Your task to perform on an android device: turn notification dots on Image 0: 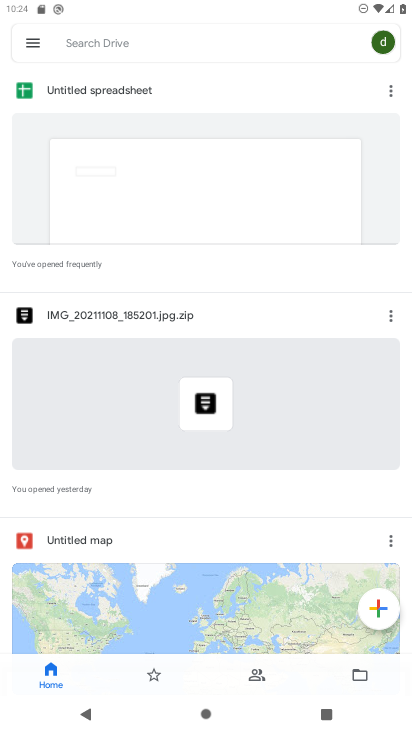
Step 0: press home button
Your task to perform on an android device: turn notification dots on Image 1: 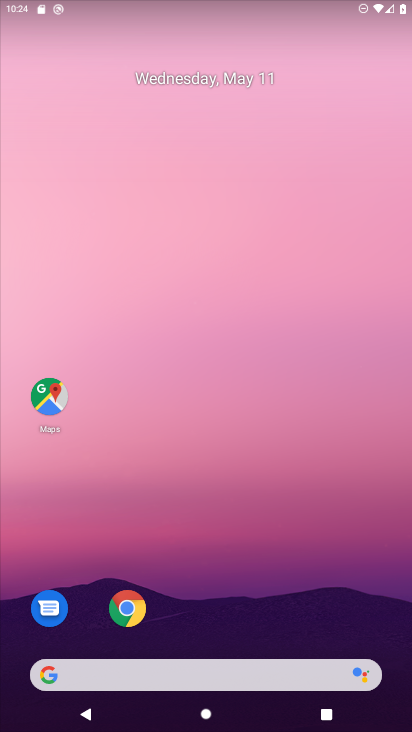
Step 1: drag from (337, 591) to (321, 123)
Your task to perform on an android device: turn notification dots on Image 2: 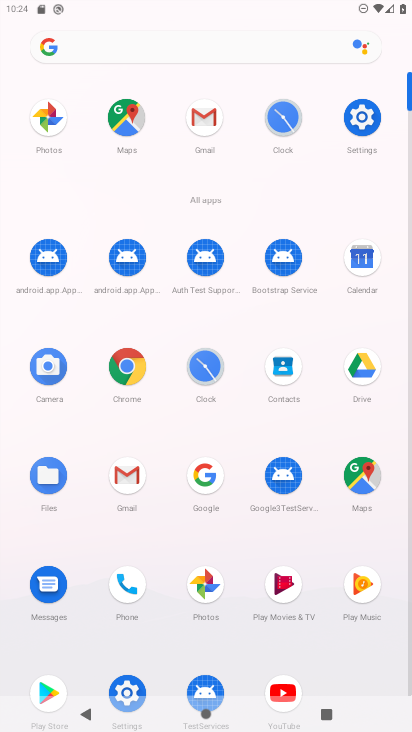
Step 2: click (364, 116)
Your task to perform on an android device: turn notification dots on Image 3: 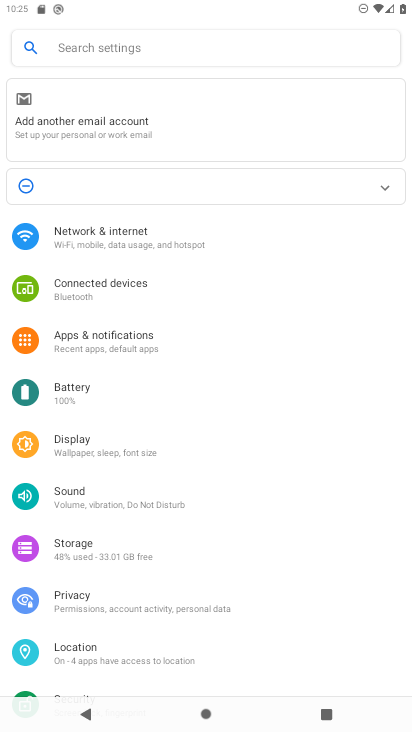
Step 3: click (125, 330)
Your task to perform on an android device: turn notification dots on Image 4: 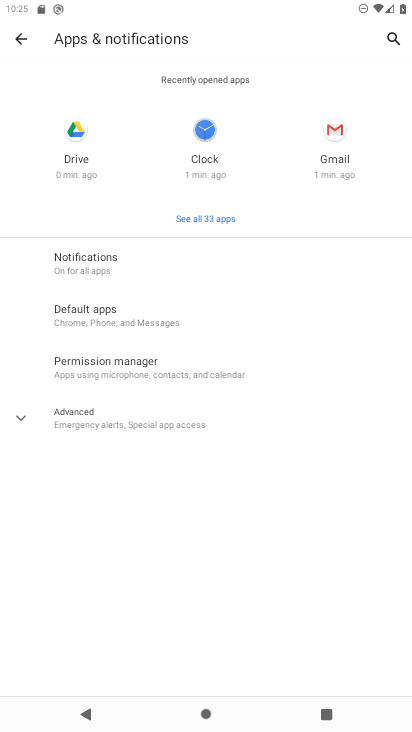
Step 4: click (100, 267)
Your task to perform on an android device: turn notification dots on Image 5: 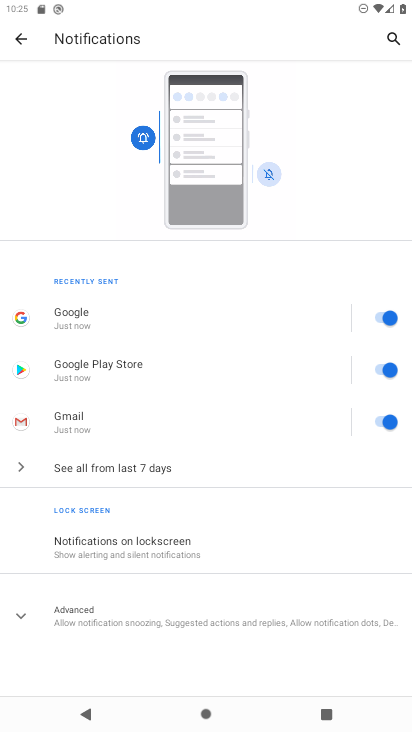
Step 5: drag from (262, 516) to (299, 213)
Your task to perform on an android device: turn notification dots on Image 6: 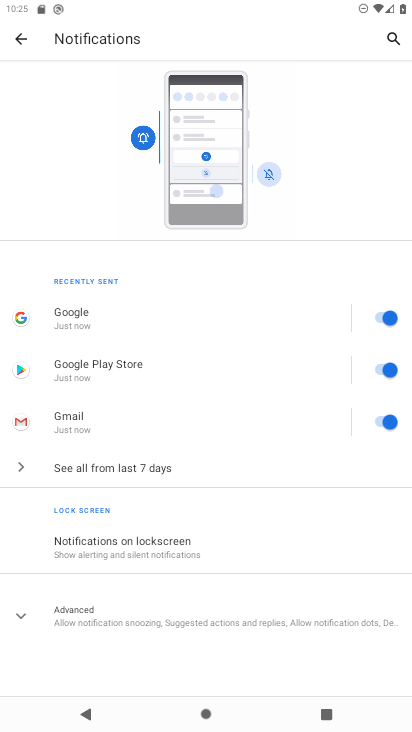
Step 6: click (191, 612)
Your task to perform on an android device: turn notification dots on Image 7: 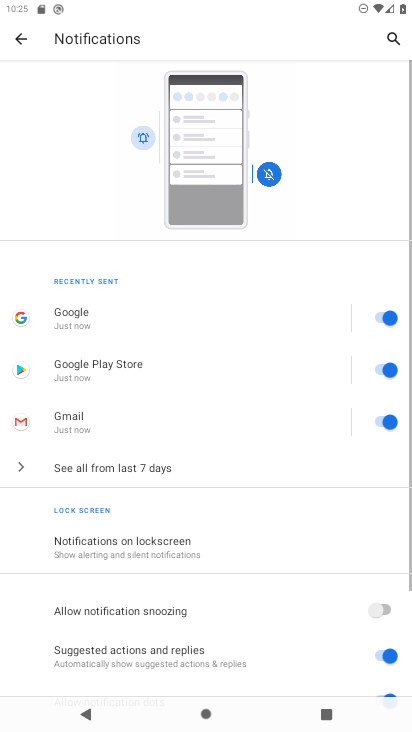
Step 7: task complete